Your task to perform on an android device: Open accessibility settings Image 0: 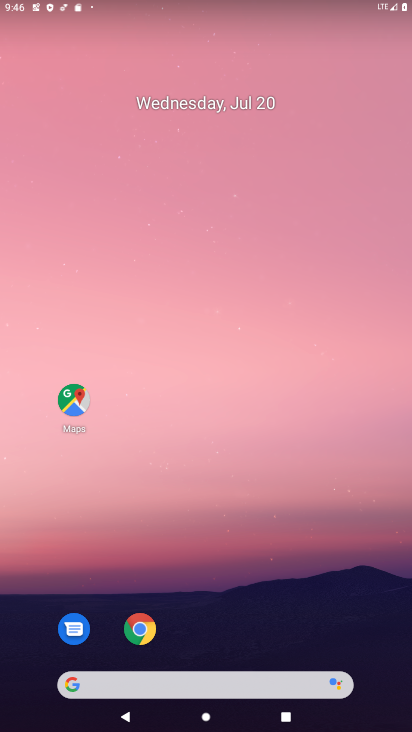
Step 0: press home button
Your task to perform on an android device: Open accessibility settings Image 1: 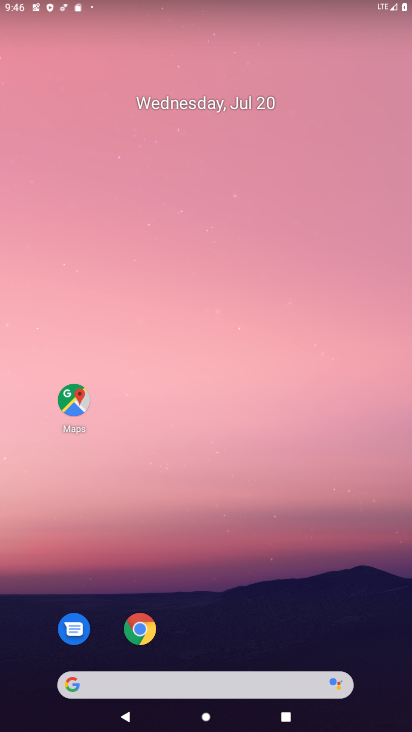
Step 1: drag from (285, 631) to (344, 66)
Your task to perform on an android device: Open accessibility settings Image 2: 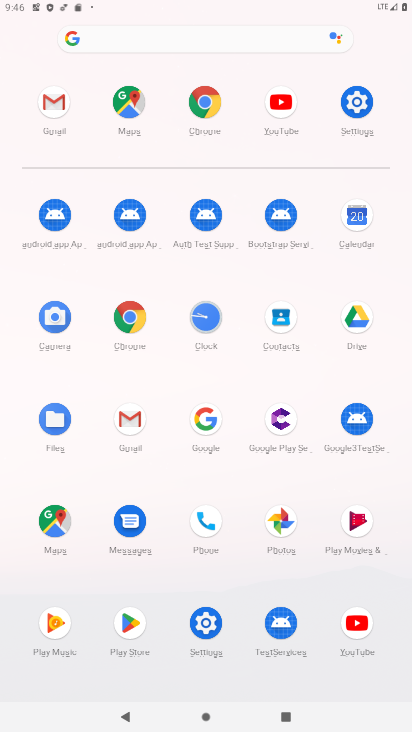
Step 2: click (216, 632)
Your task to perform on an android device: Open accessibility settings Image 3: 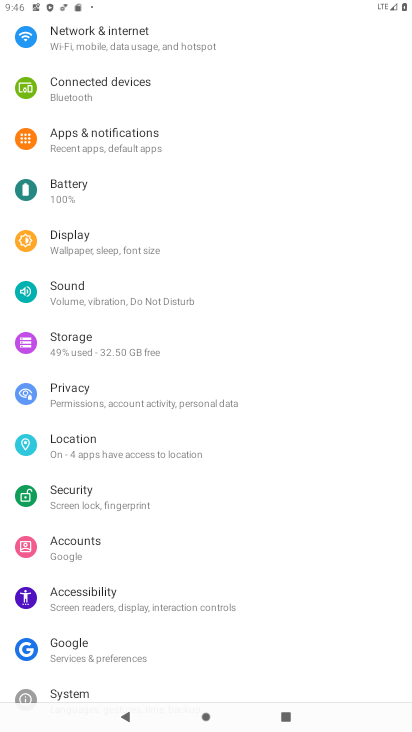
Step 3: drag from (124, 638) to (126, 566)
Your task to perform on an android device: Open accessibility settings Image 4: 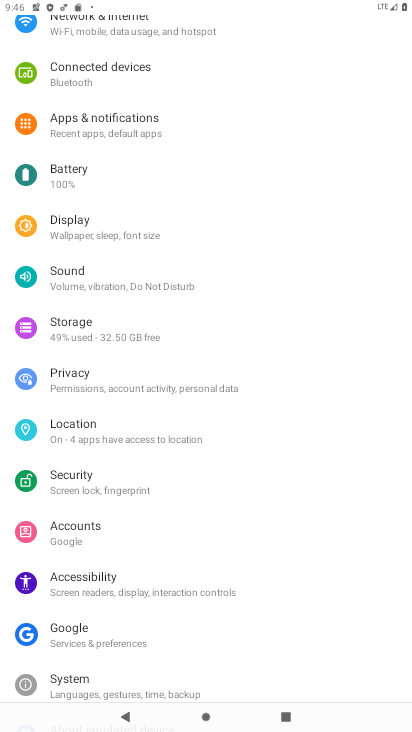
Step 4: click (100, 576)
Your task to perform on an android device: Open accessibility settings Image 5: 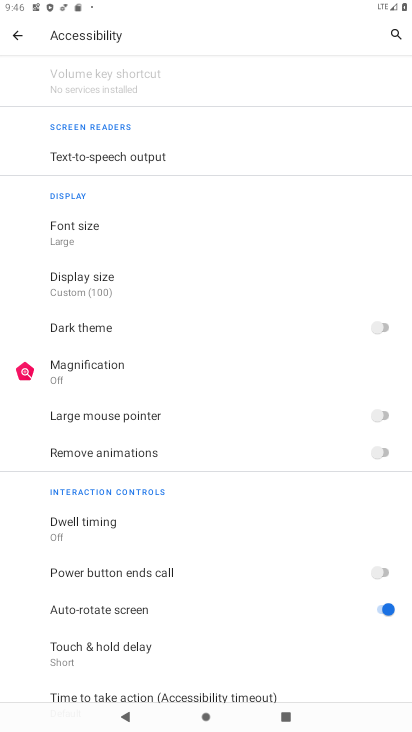
Step 5: task complete